Your task to perform on an android device: Go to location settings Image 0: 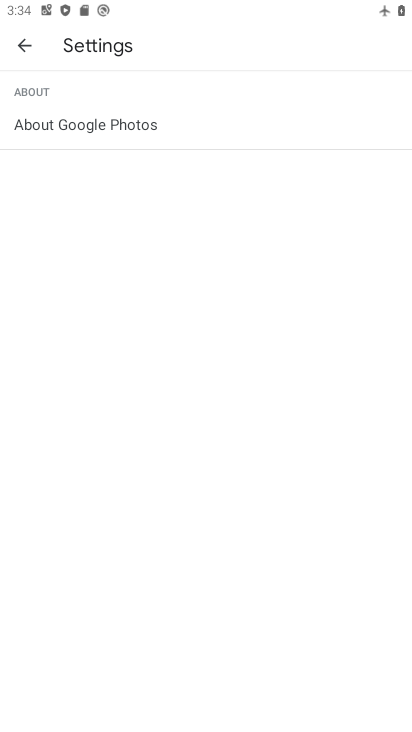
Step 0: press home button
Your task to perform on an android device: Go to location settings Image 1: 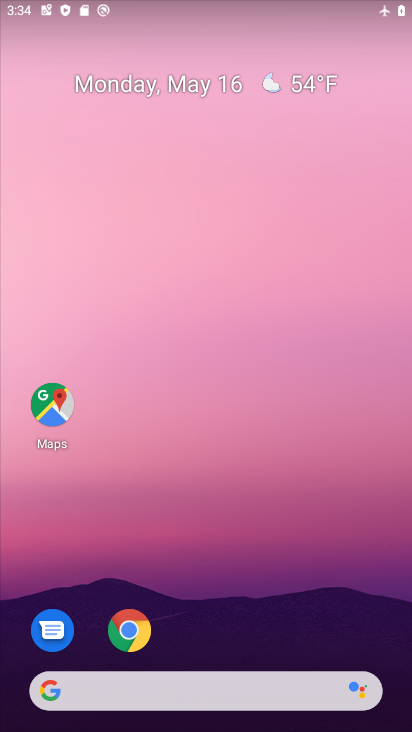
Step 1: drag from (242, 636) to (198, 363)
Your task to perform on an android device: Go to location settings Image 2: 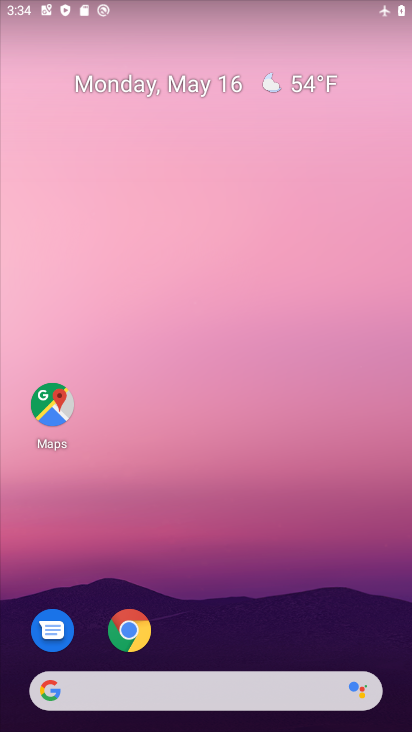
Step 2: drag from (205, 626) to (299, 3)
Your task to perform on an android device: Go to location settings Image 3: 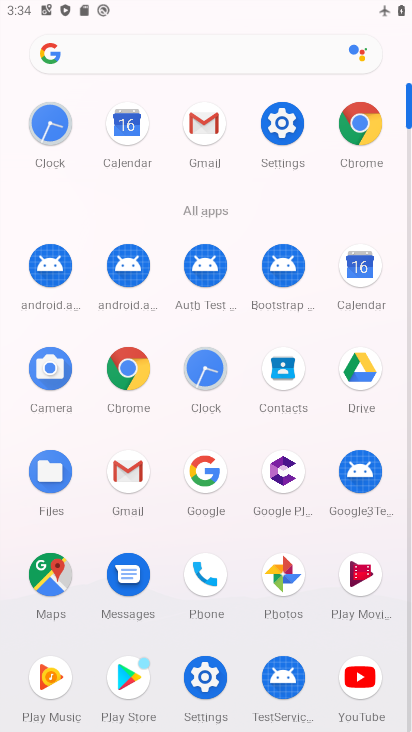
Step 3: click (285, 175)
Your task to perform on an android device: Go to location settings Image 4: 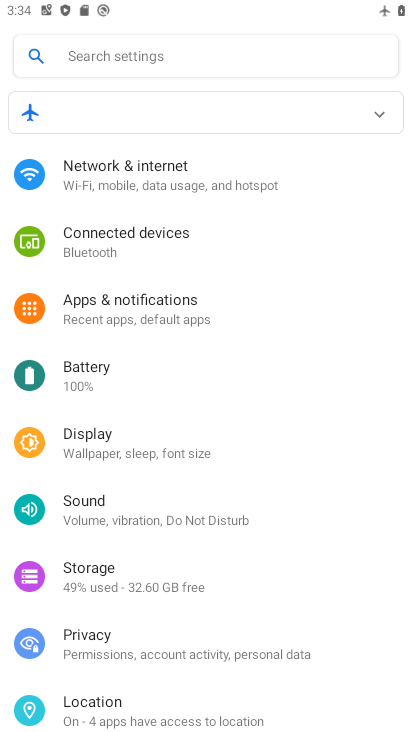
Step 4: click (210, 718)
Your task to perform on an android device: Go to location settings Image 5: 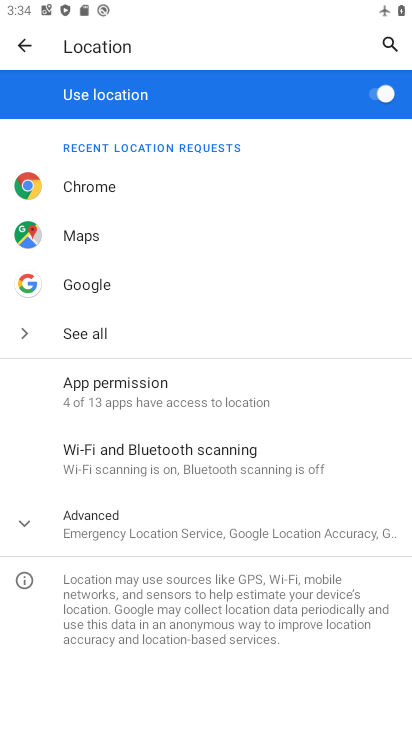
Step 5: task complete